Your task to perform on an android device: Show me popular videos on Youtube Image 0: 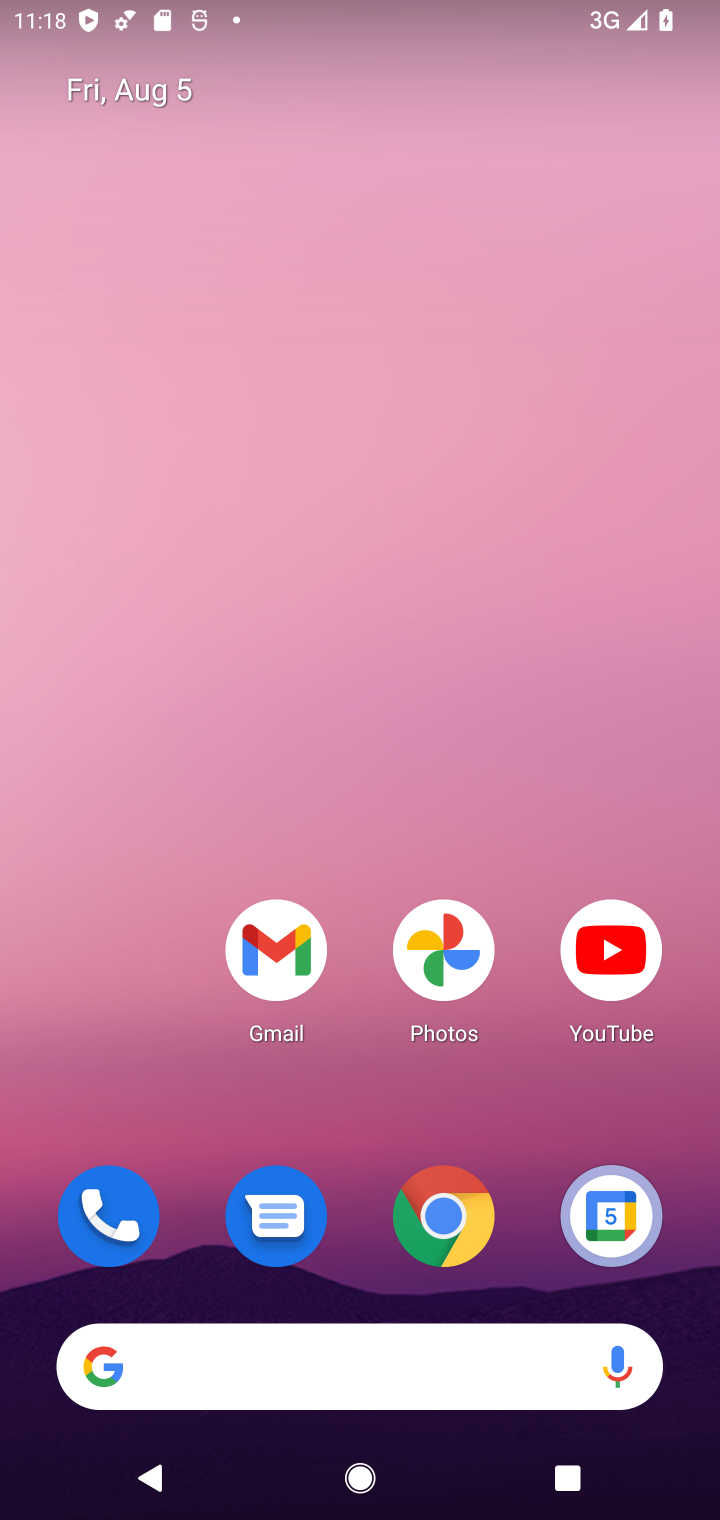
Step 0: click (585, 918)
Your task to perform on an android device: Show me popular videos on Youtube Image 1: 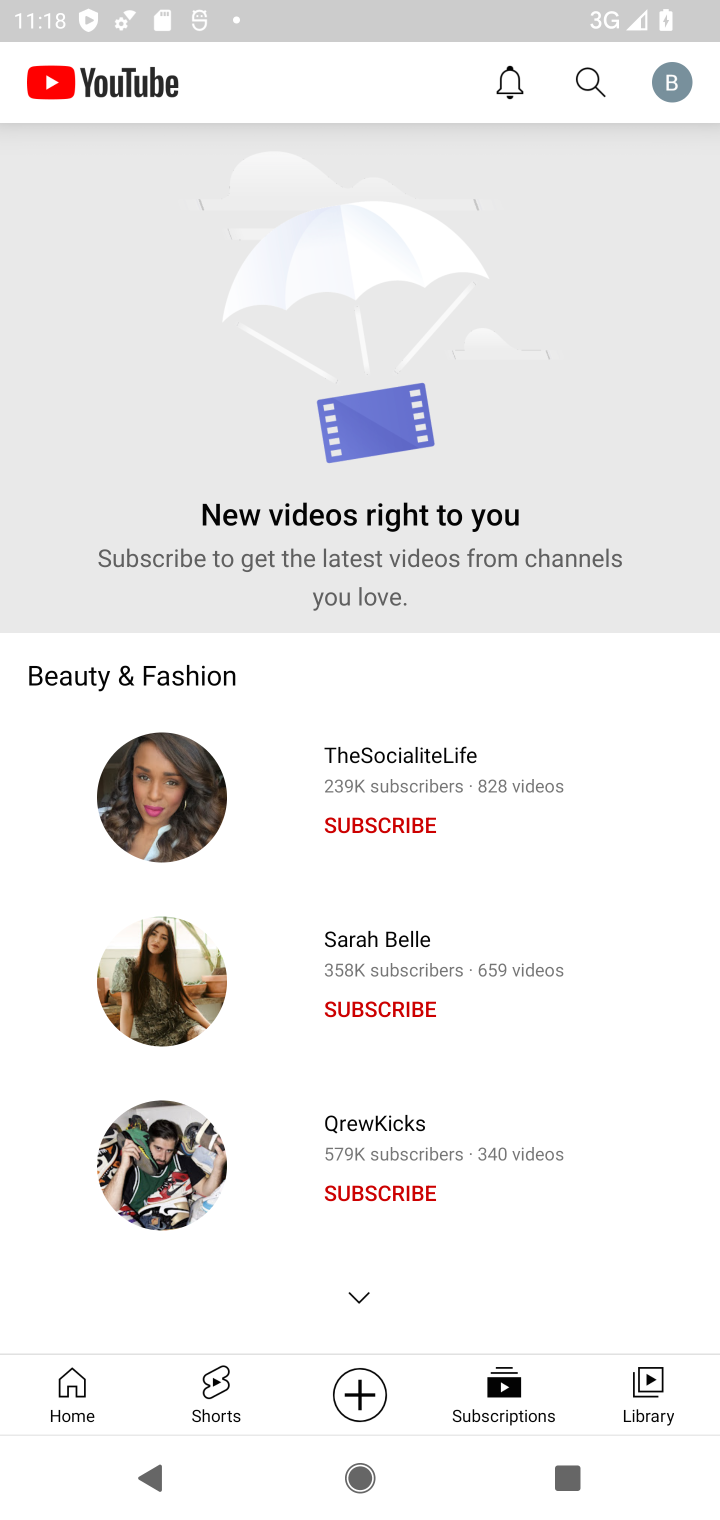
Step 1: click (68, 1373)
Your task to perform on an android device: Show me popular videos on Youtube Image 2: 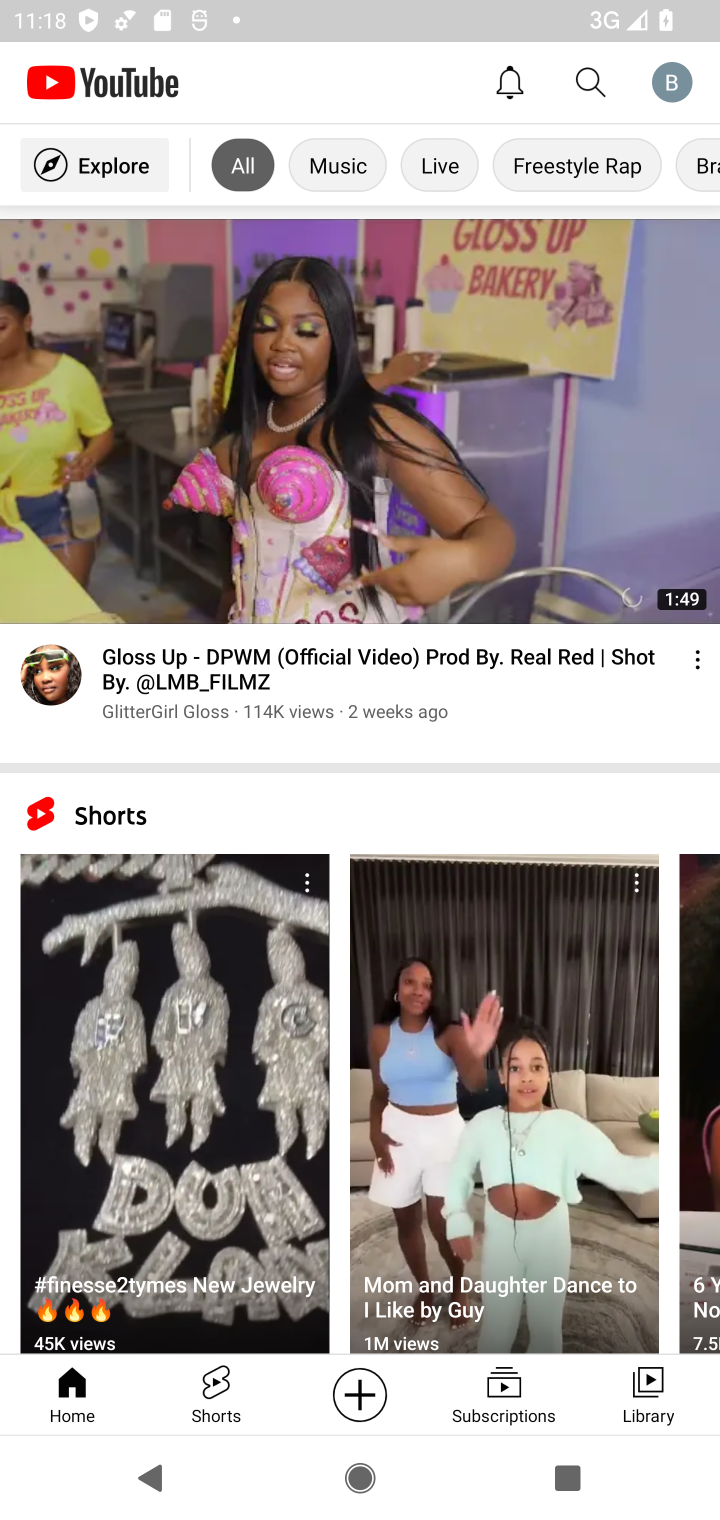
Step 2: task complete